Your task to perform on an android device: Open sound settings Image 0: 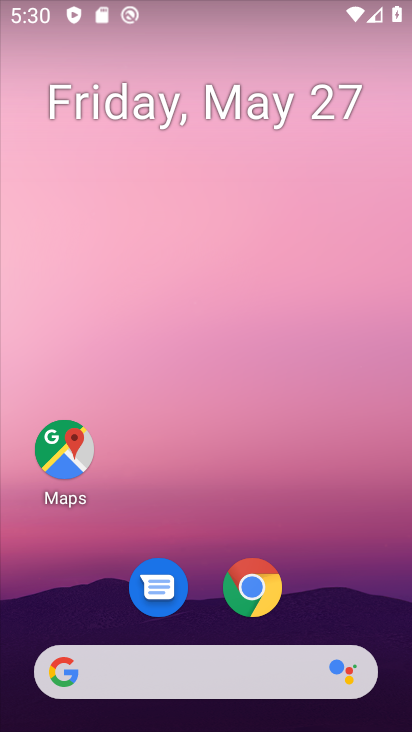
Step 0: drag from (263, 483) to (229, 0)
Your task to perform on an android device: Open sound settings Image 1: 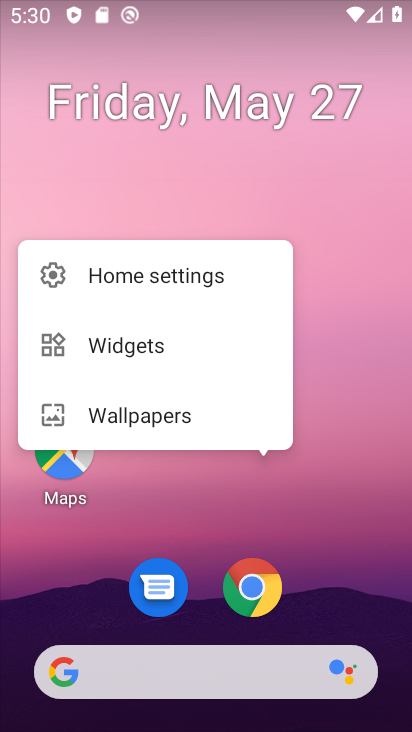
Step 1: click (307, 360)
Your task to perform on an android device: Open sound settings Image 2: 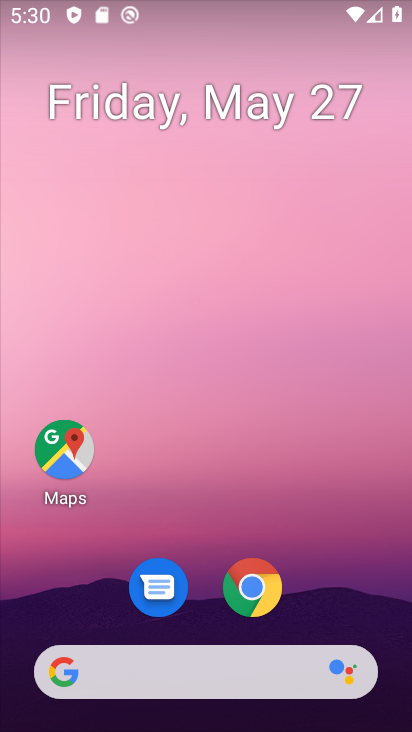
Step 2: drag from (309, 510) to (310, 39)
Your task to perform on an android device: Open sound settings Image 3: 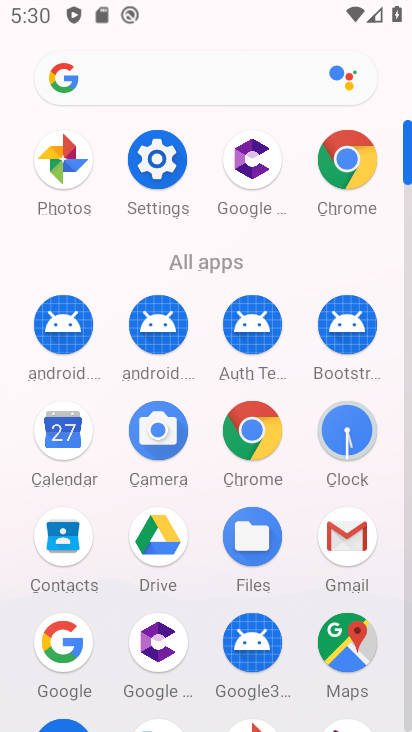
Step 3: drag from (254, 443) to (263, 153)
Your task to perform on an android device: Open sound settings Image 4: 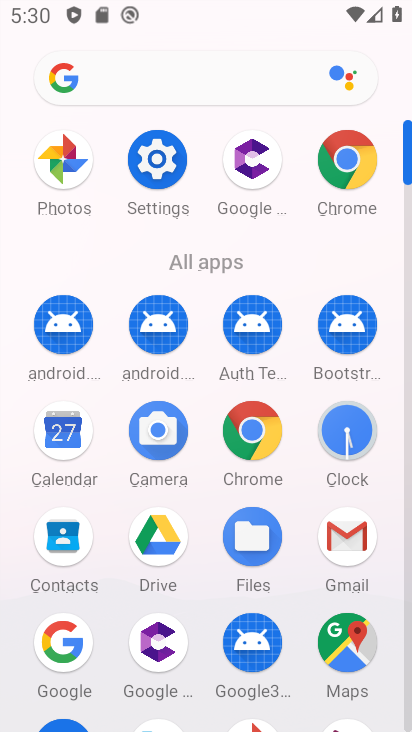
Step 4: drag from (308, 286) to (313, 0)
Your task to perform on an android device: Open sound settings Image 5: 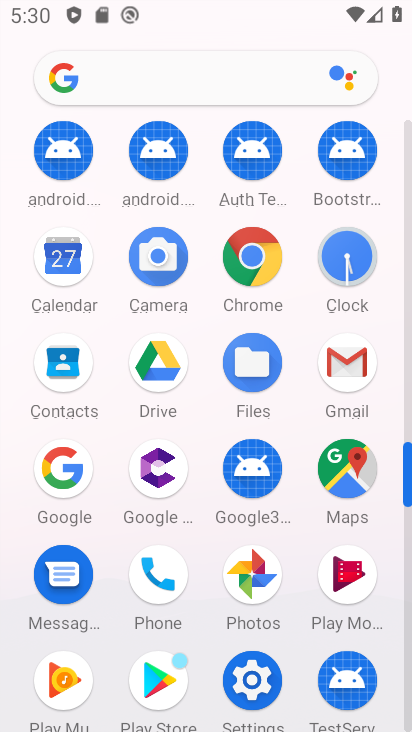
Step 5: click (254, 676)
Your task to perform on an android device: Open sound settings Image 6: 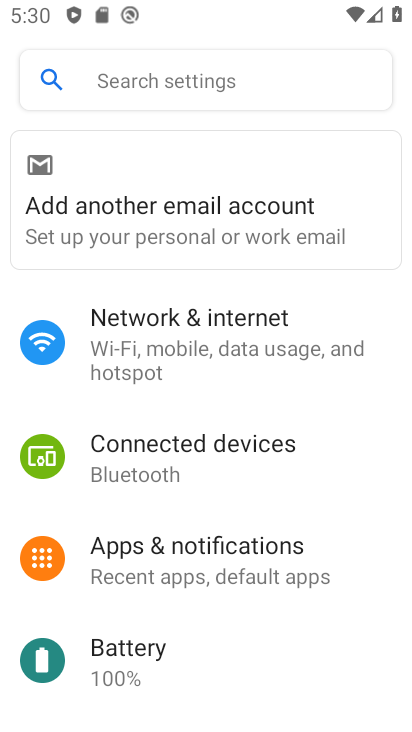
Step 6: drag from (195, 535) to (177, 94)
Your task to perform on an android device: Open sound settings Image 7: 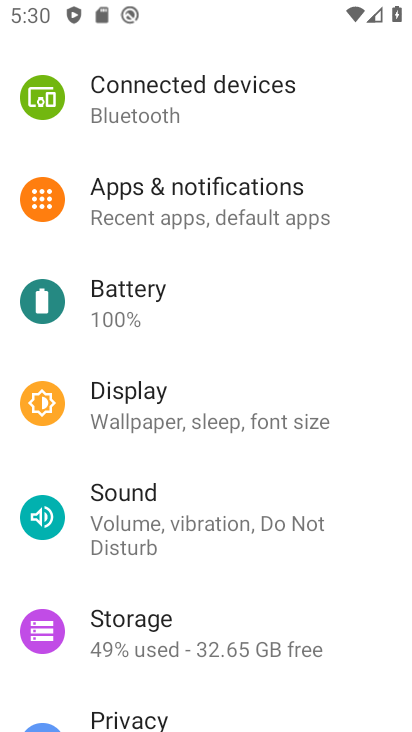
Step 7: click (135, 501)
Your task to perform on an android device: Open sound settings Image 8: 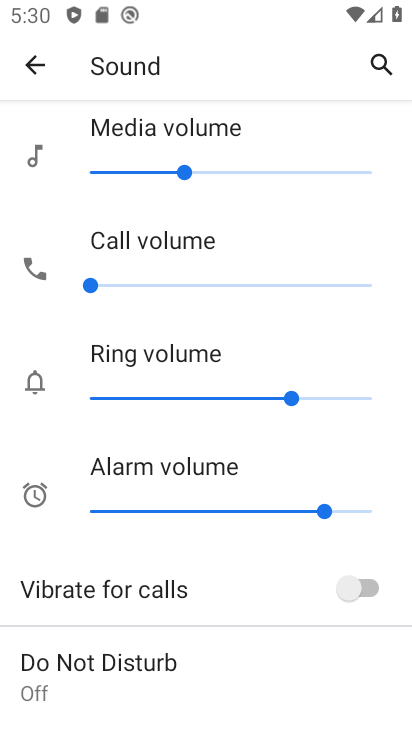
Step 8: task complete